Your task to perform on an android device: Open the stopwatch Image 0: 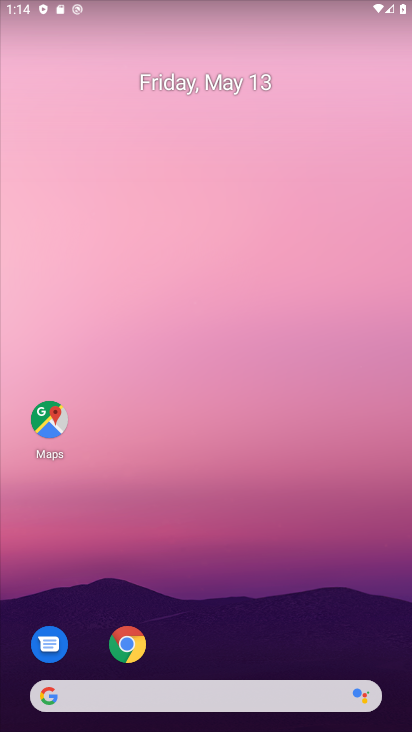
Step 0: drag from (301, 605) to (282, 188)
Your task to perform on an android device: Open the stopwatch Image 1: 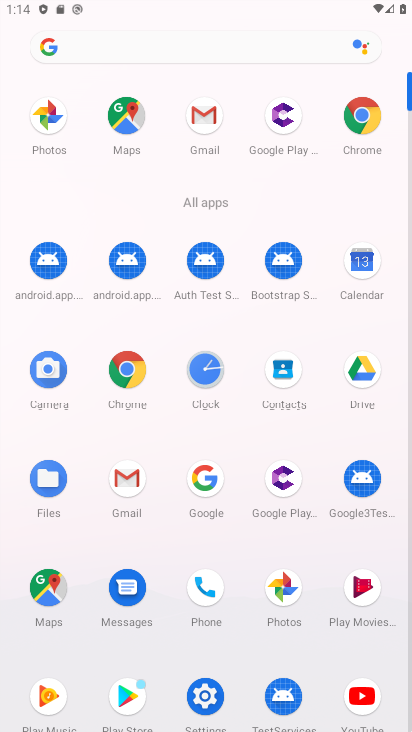
Step 1: click (203, 370)
Your task to perform on an android device: Open the stopwatch Image 2: 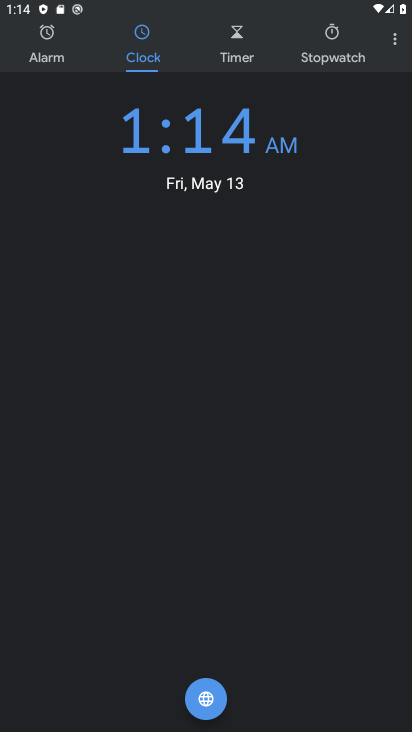
Step 2: click (335, 45)
Your task to perform on an android device: Open the stopwatch Image 3: 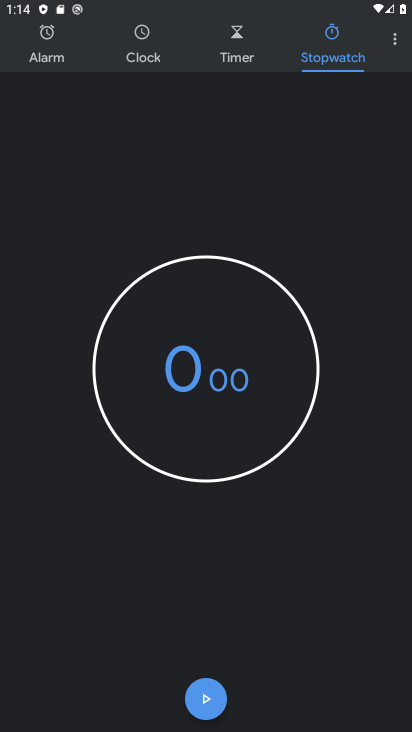
Step 3: task complete